Your task to perform on an android device: When is my next appointment? Image 0: 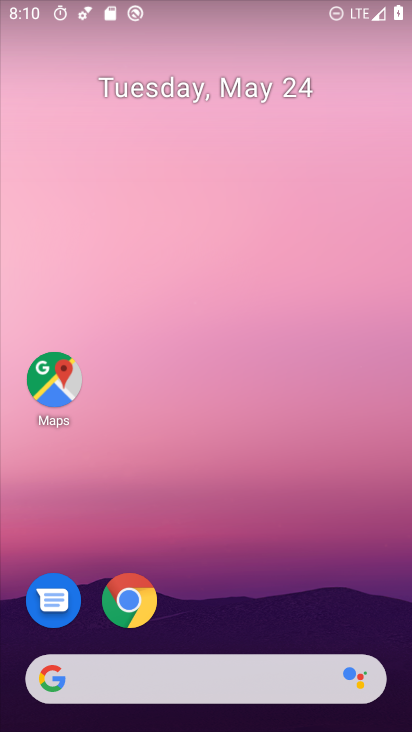
Step 0: drag from (220, 552) to (294, 15)
Your task to perform on an android device: When is my next appointment? Image 1: 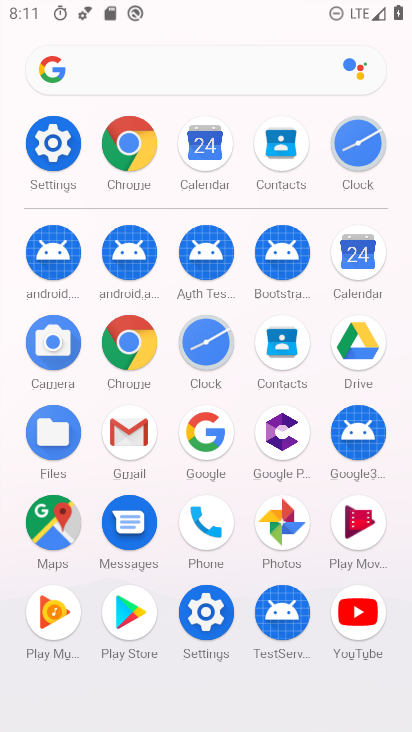
Step 1: click (150, 69)
Your task to perform on an android device: When is my next appointment? Image 2: 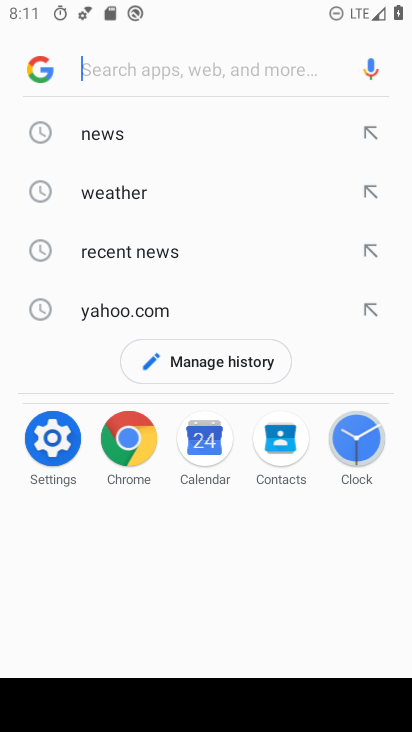
Step 2: press home button
Your task to perform on an android device: When is my next appointment? Image 3: 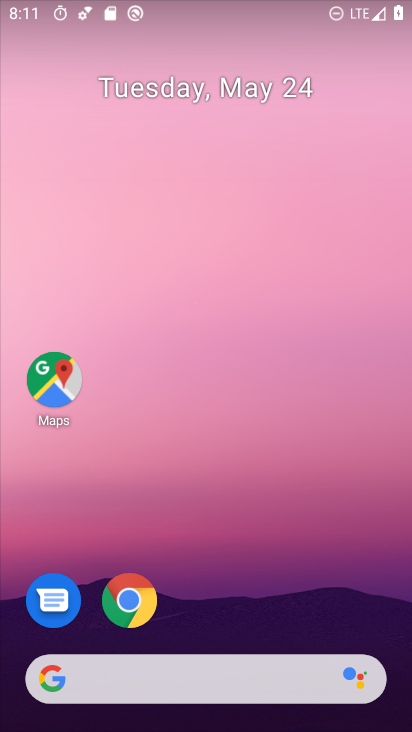
Step 3: drag from (185, 540) to (244, 14)
Your task to perform on an android device: When is my next appointment? Image 4: 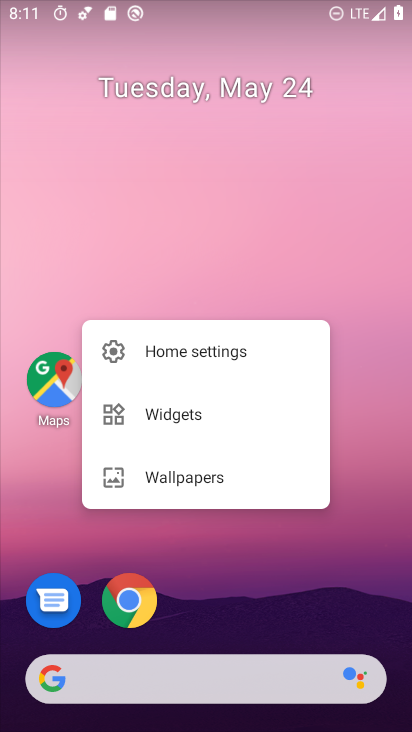
Step 4: click (360, 365)
Your task to perform on an android device: When is my next appointment? Image 5: 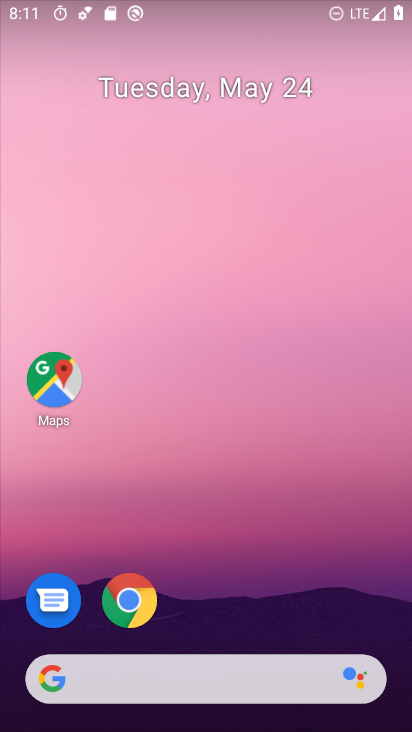
Step 5: drag from (230, 608) to (296, 50)
Your task to perform on an android device: When is my next appointment? Image 6: 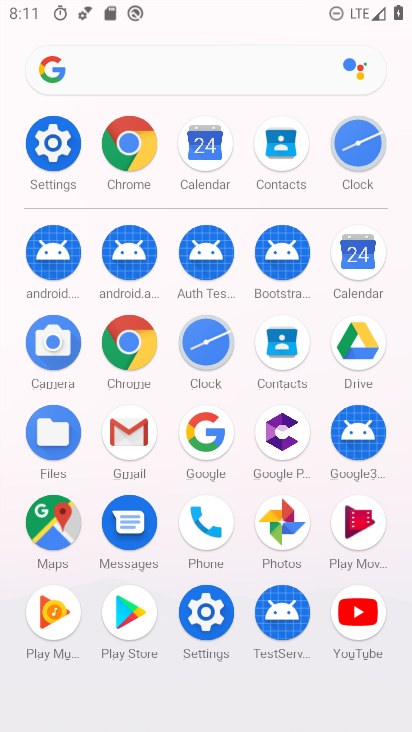
Step 6: click (350, 259)
Your task to perform on an android device: When is my next appointment? Image 7: 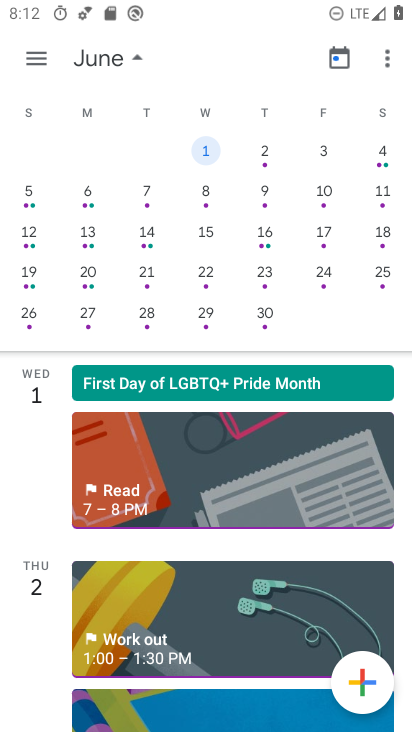
Step 7: drag from (32, 276) to (385, 235)
Your task to perform on an android device: When is my next appointment? Image 8: 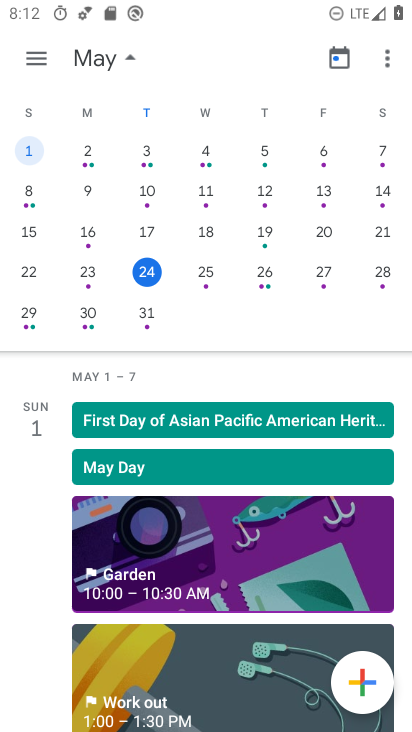
Step 8: drag from (176, 675) to (250, 452)
Your task to perform on an android device: When is my next appointment? Image 9: 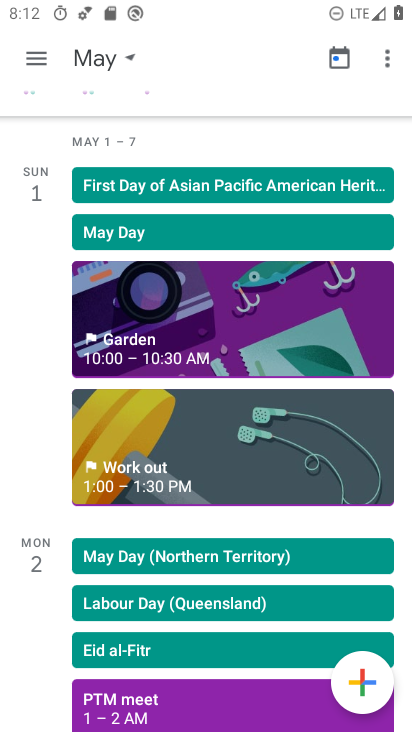
Step 9: drag from (228, 362) to (199, 718)
Your task to perform on an android device: When is my next appointment? Image 10: 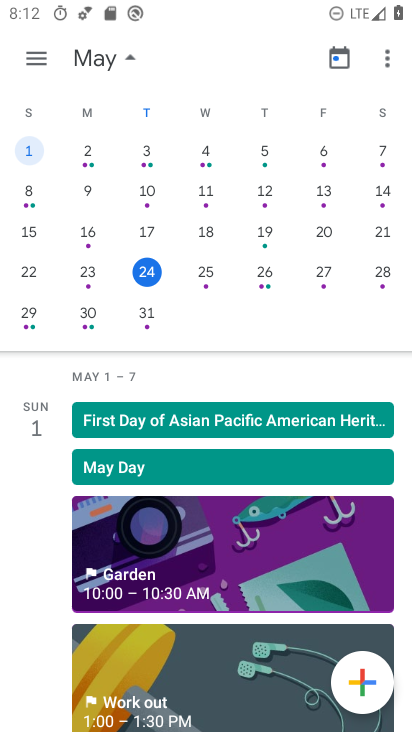
Step 10: click (144, 269)
Your task to perform on an android device: When is my next appointment? Image 11: 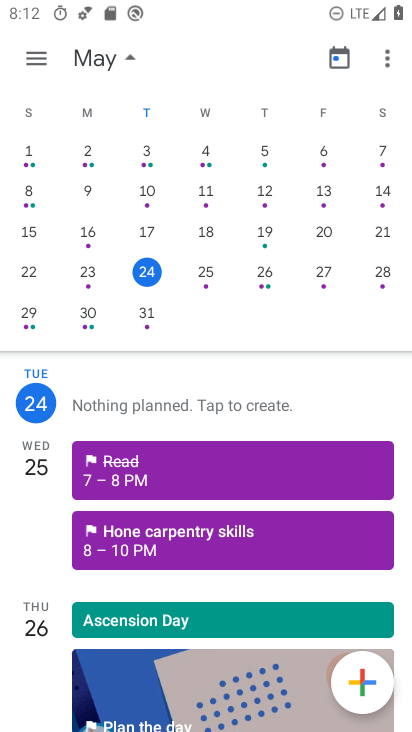
Step 11: drag from (174, 650) to (297, 164)
Your task to perform on an android device: When is my next appointment? Image 12: 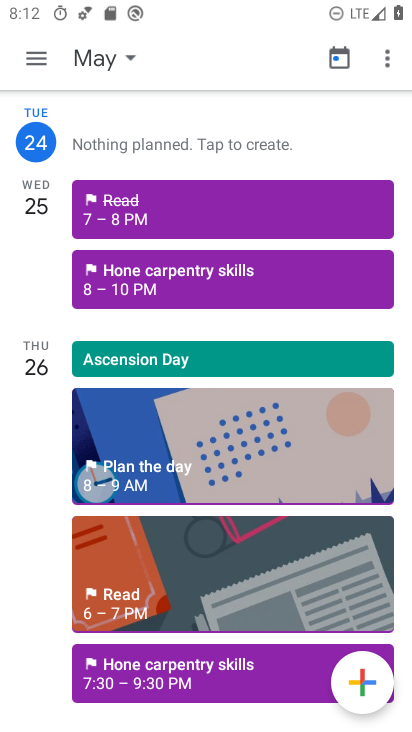
Step 12: click (130, 468)
Your task to perform on an android device: When is my next appointment? Image 13: 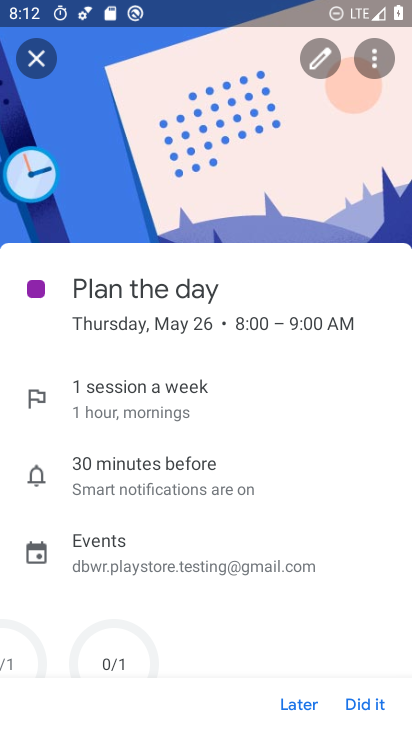
Step 13: task complete